Your task to perform on an android device: turn pop-ups on in chrome Image 0: 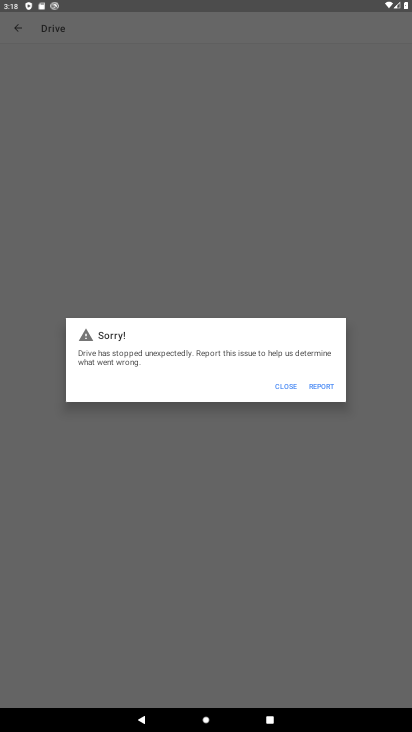
Step 0: press home button
Your task to perform on an android device: turn pop-ups on in chrome Image 1: 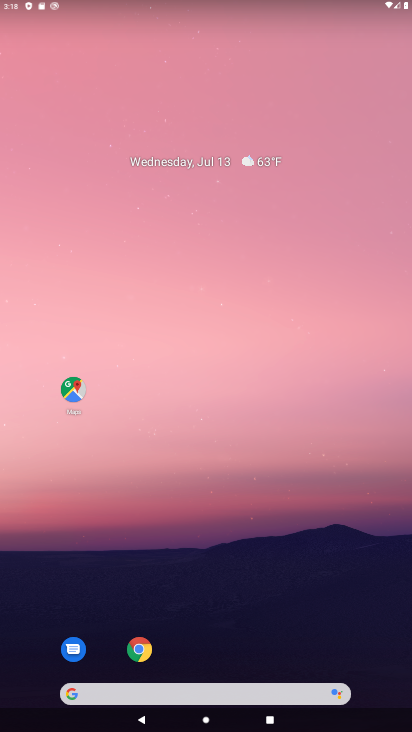
Step 1: click (142, 653)
Your task to perform on an android device: turn pop-ups on in chrome Image 2: 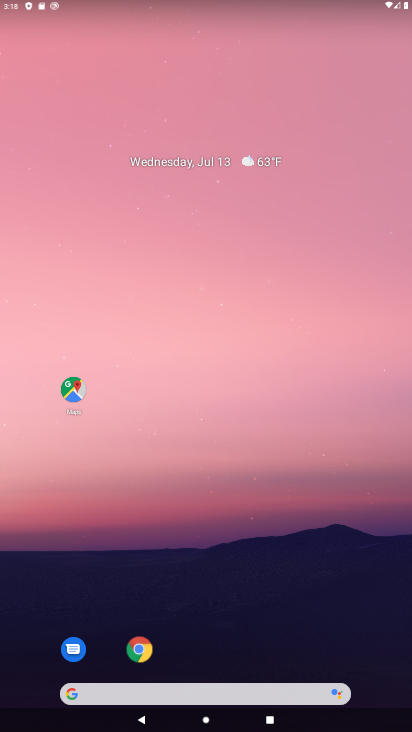
Step 2: click (142, 653)
Your task to perform on an android device: turn pop-ups on in chrome Image 3: 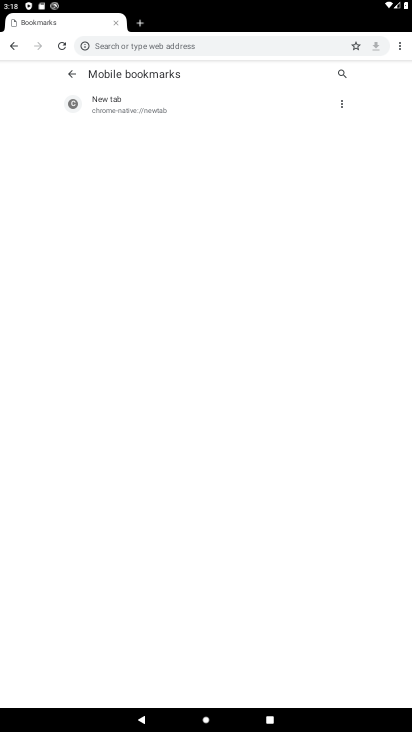
Step 3: click (396, 47)
Your task to perform on an android device: turn pop-ups on in chrome Image 4: 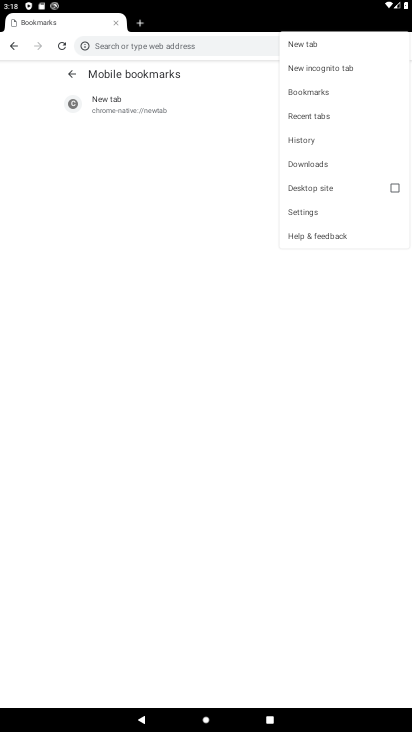
Step 4: click (304, 208)
Your task to perform on an android device: turn pop-ups on in chrome Image 5: 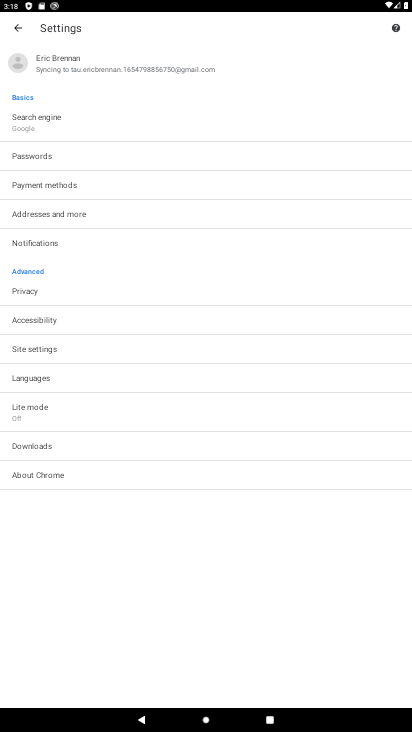
Step 5: click (89, 348)
Your task to perform on an android device: turn pop-ups on in chrome Image 6: 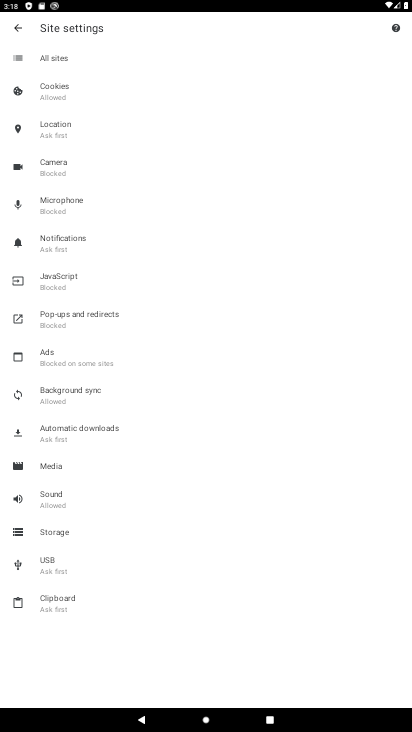
Step 6: click (87, 321)
Your task to perform on an android device: turn pop-ups on in chrome Image 7: 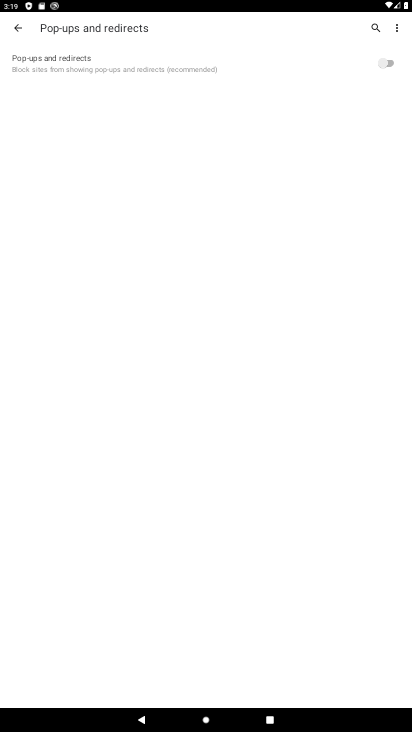
Step 7: click (390, 52)
Your task to perform on an android device: turn pop-ups on in chrome Image 8: 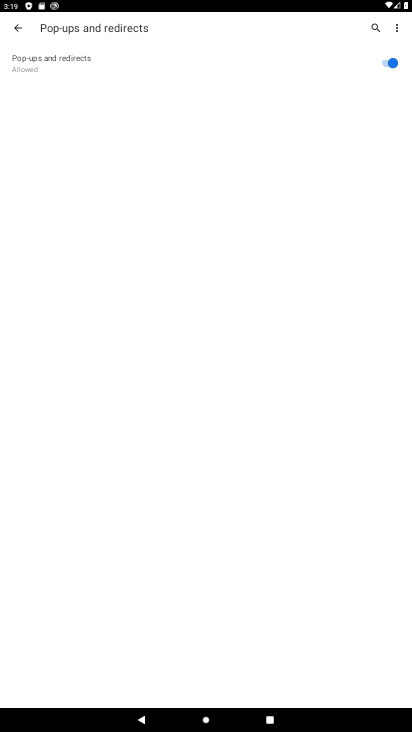
Step 8: task complete